Your task to perform on an android device: What's the weather today? Image 0: 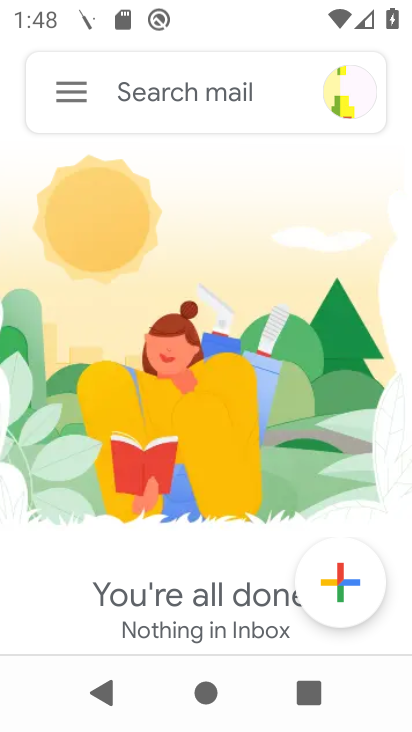
Step 0: press home button
Your task to perform on an android device: What's the weather today? Image 1: 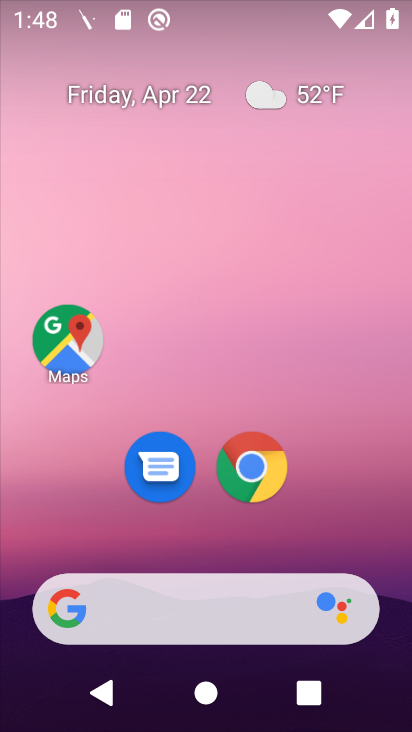
Step 1: click (327, 498)
Your task to perform on an android device: What's the weather today? Image 2: 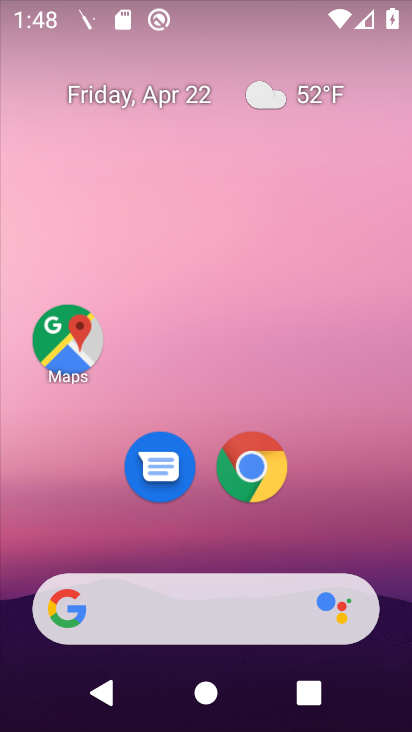
Step 2: task complete